Your task to perform on an android device: turn off notifications in google photos Image 0: 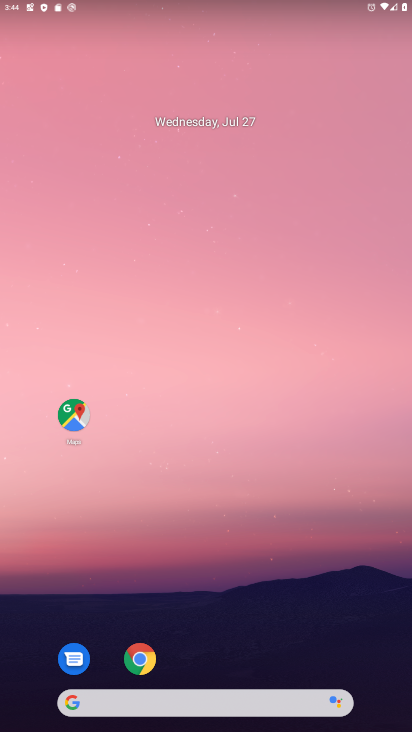
Step 0: drag from (253, 621) to (318, 7)
Your task to perform on an android device: turn off notifications in google photos Image 1: 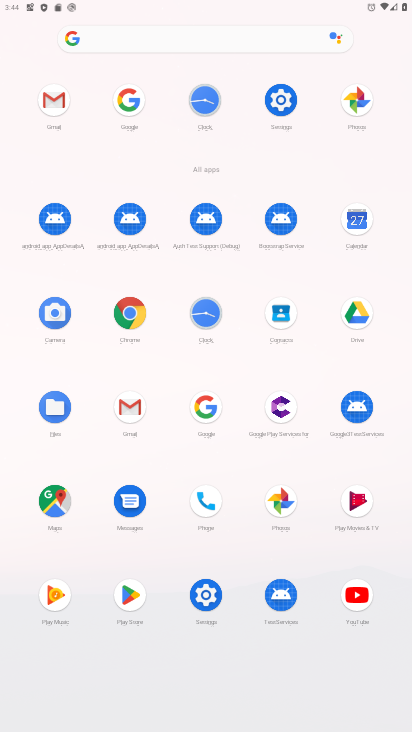
Step 1: click (284, 495)
Your task to perform on an android device: turn off notifications in google photos Image 2: 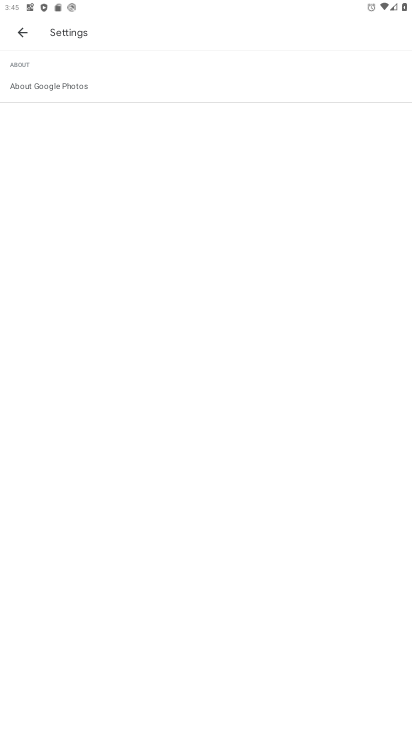
Step 2: click (17, 39)
Your task to perform on an android device: turn off notifications in google photos Image 3: 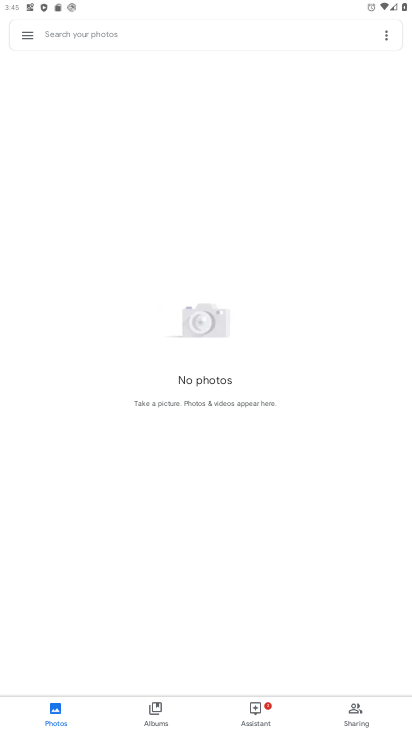
Step 3: click (25, 34)
Your task to perform on an android device: turn off notifications in google photos Image 4: 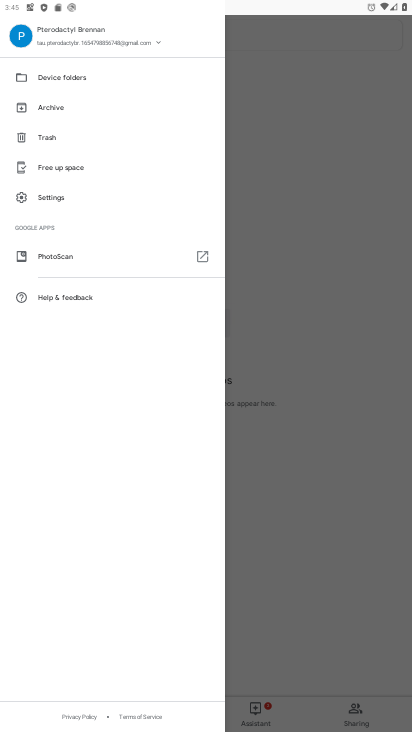
Step 4: click (50, 202)
Your task to perform on an android device: turn off notifications in google photos Image 5: 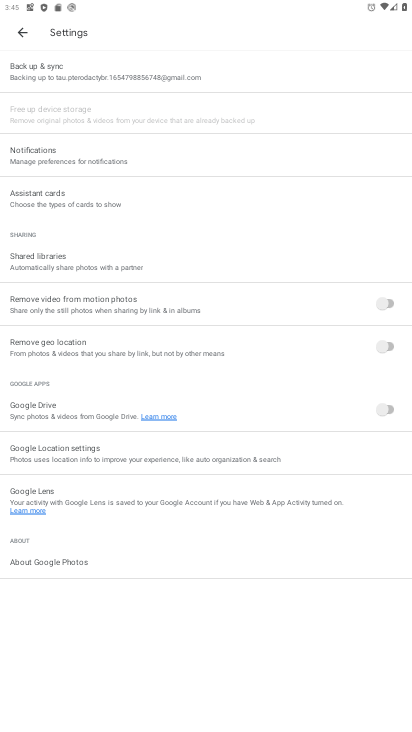
Step 5: click (120, 161)
Your task to perform on an android device: turn off notifications in google photos Image 6: 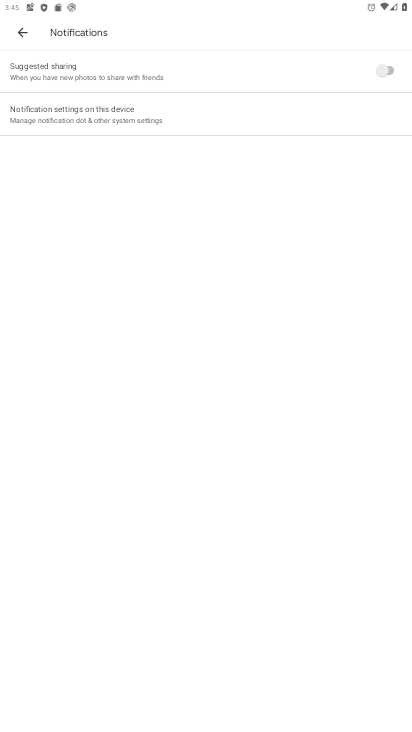
Step 6: click (223, 120)
Your task to perform on an android device: turn off notifications in google photos Image 7: 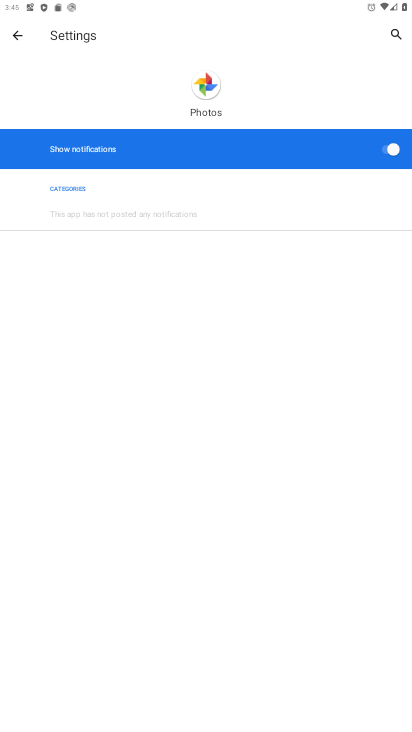
Step 7: click (390, 145)
Your task to perform on an android device: turn off notifications in google photos Image 8: 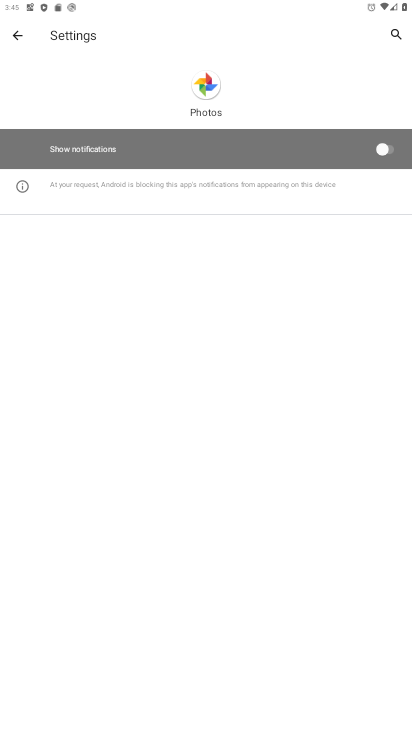
Step 8: task complete